Your task to perform on an android device: turn off smart reply in the gmail app Image 0: 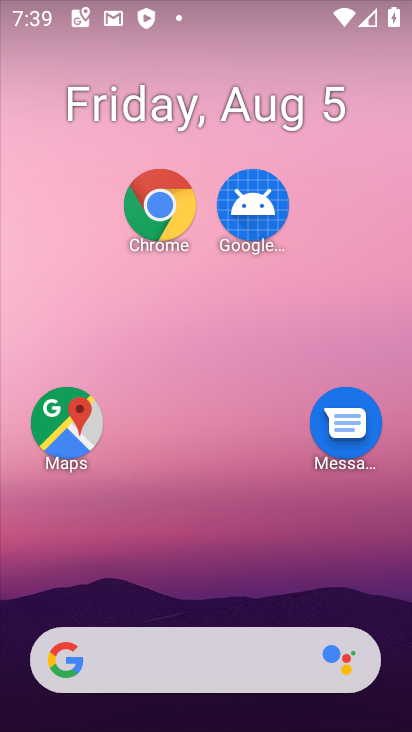
Step 0: drag from (227, 604) to (183, 7)
Your task to perform on an android device: turn off smart reply in the gmail app Image 1: 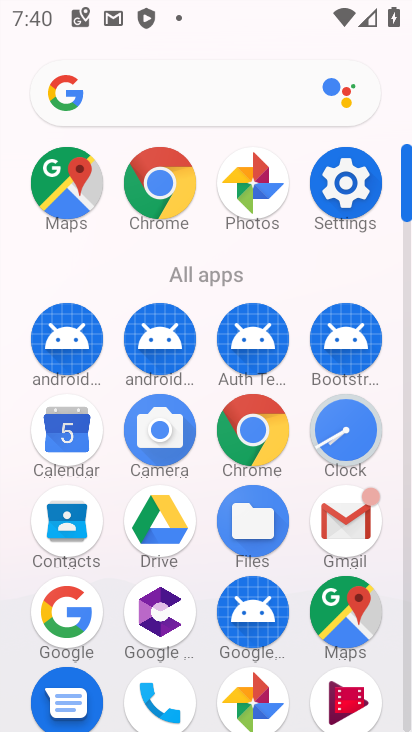
Step 1: click (363, 535)
Your task to perform on an android device: turn off smart reply in the gmail app Image 2: 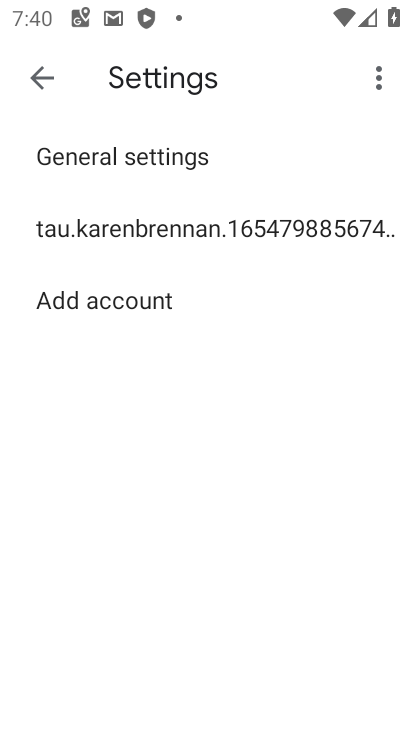
Step 2: click (160, 244)
Your task to perform on an android device: turn off smart reply in the gmail app Image 3: 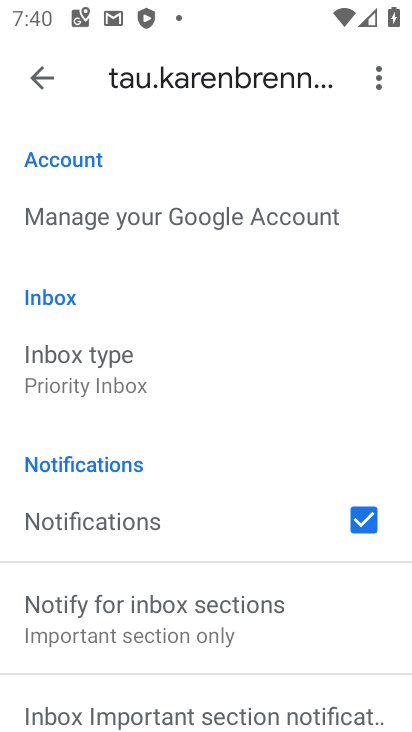
Step 3: drag from (217, 569) to (163, 247)
Your task to perform on an android device: turn off smart reply in the gmail app Image 4: 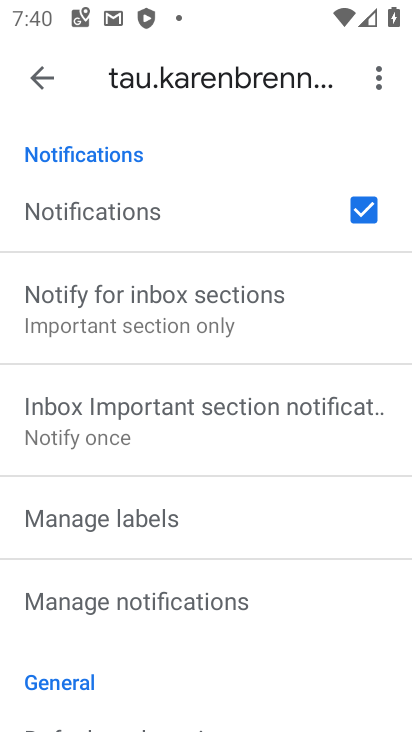
Step 4: drag from (144, 538) to (111, 175)
Your task to perform on an android device: turn off smart reply in the gmail app Image 5: 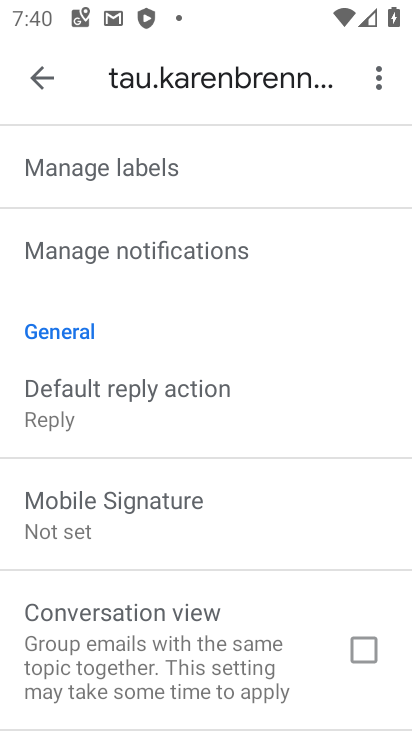
Step 5: drag from (172, 512) to (177, 121)
Your task to perform on an android device: turn off smart reply in the gmail app Image 6: 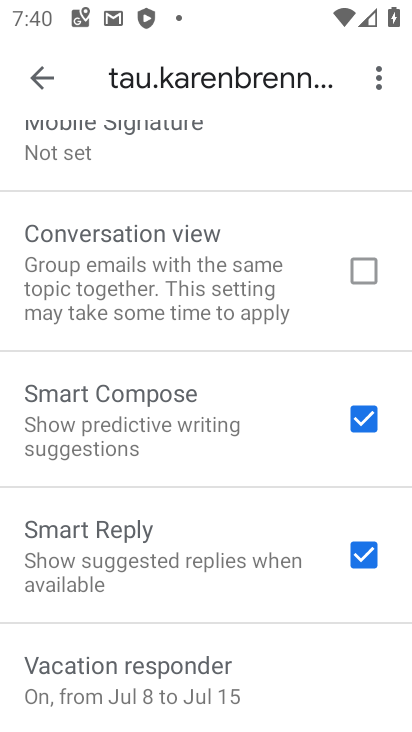
Step 6: click (361, 551)
Your task to perform on an android device: turn off smart reply in the gmail app Image 7: 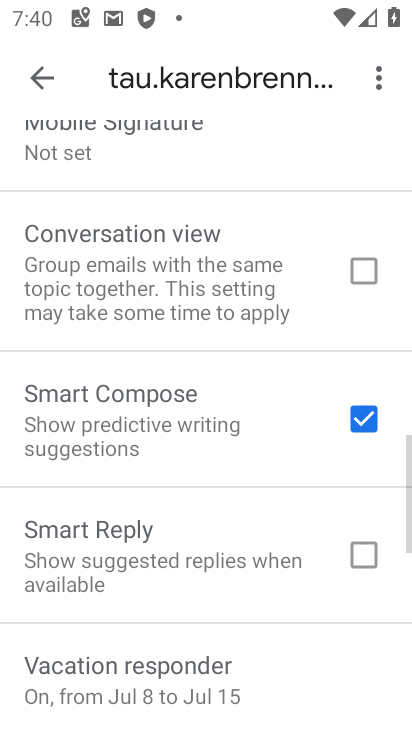
Step 7: task complete